Your task to perform on an android device: Go to Android settings Image 0: 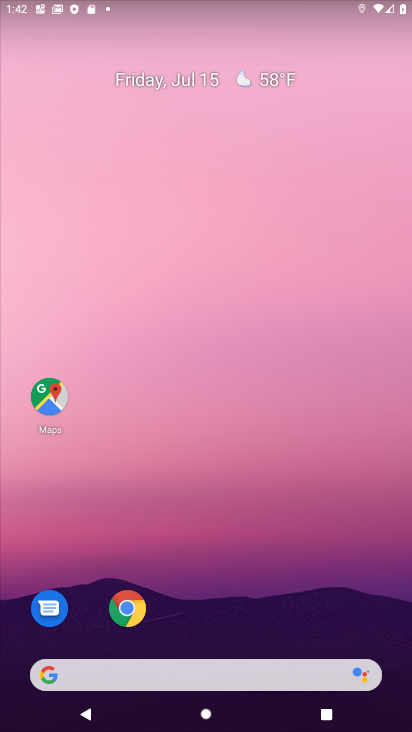
Step 0: drag from (229, 625) to (222, 82)
Your task to perform on an android device: Go to Android settings Image 1: 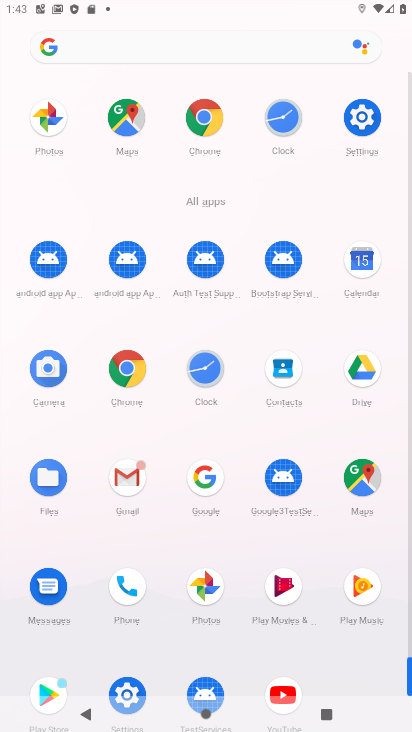
Step 1: click (128, 689)
Your task to perform on an android device: Go to Android settings Image 2: 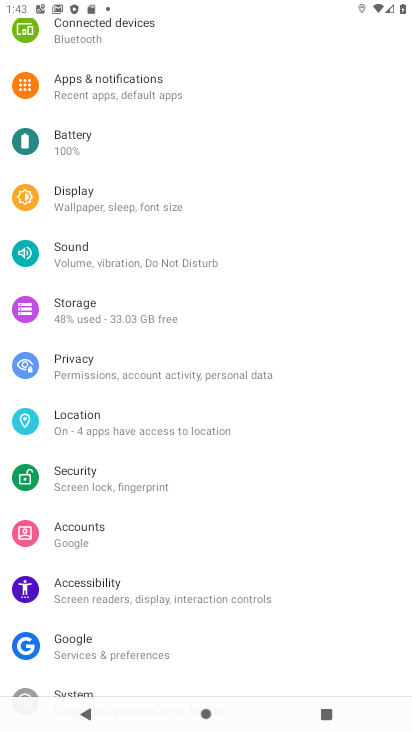
Step 2: drag from (202, 642) to (183, 167)
Your task to perform on an android device: Go to Android settings Image 3: 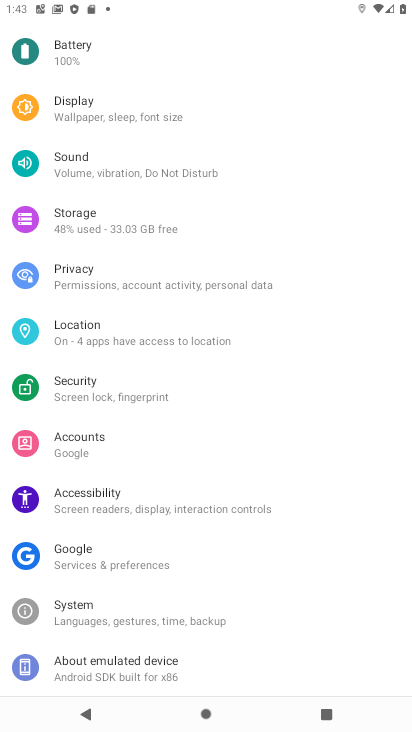
Step 3: click (86, 665)
Your task to perform on an android device: Go to Android settings Image 4: 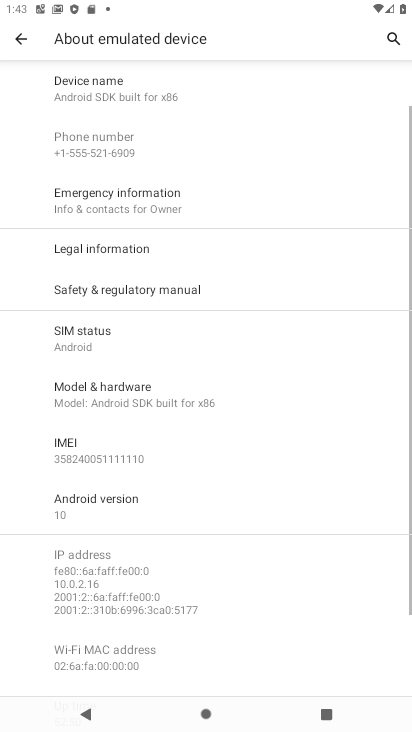
Step 4: click (106, 502)
Your task to perform on an android device: Go to Android settings Image 5: 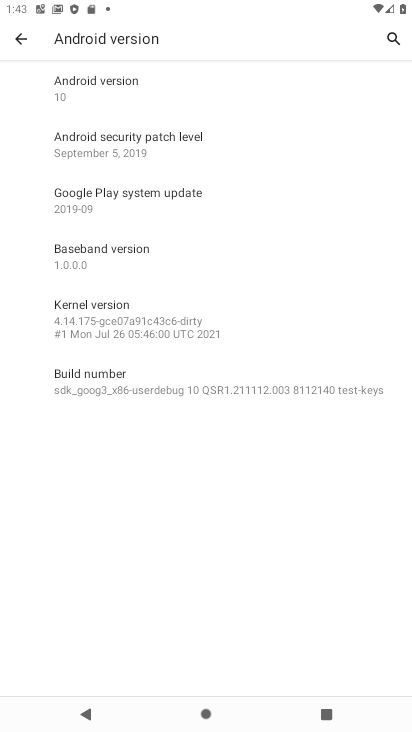
Step 5: task complete